Your task to perform on an android device: add a contact Image 0: 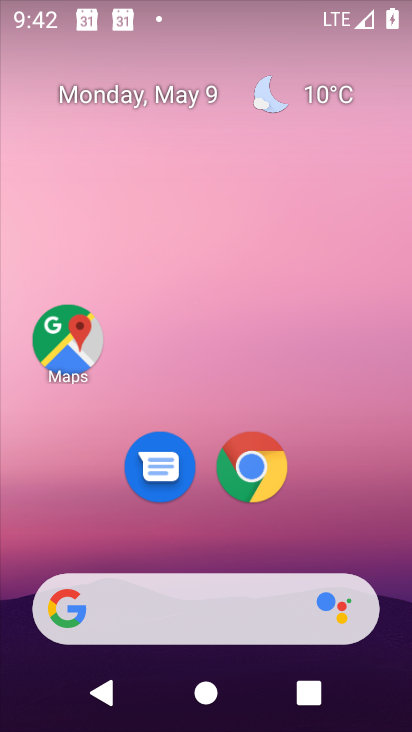
Step 0: drag from (353, 547) to (335, 11)
Your task to perform on an android device: add a contact Image 1: 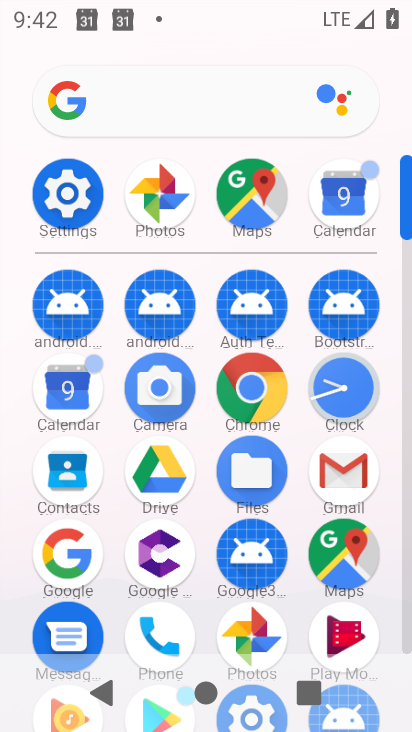
Step 1: click (68, 485)
Your task to perform on an android device: add a contact Image 2: 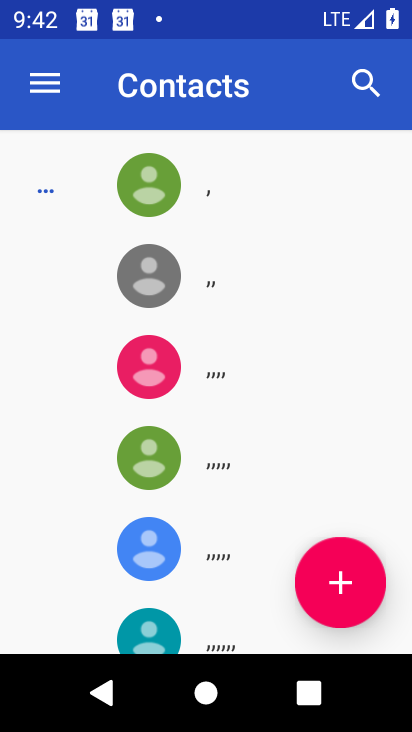
Step 2: click (334, 573)
Your task to perform on an android device: add a contact Image 3: 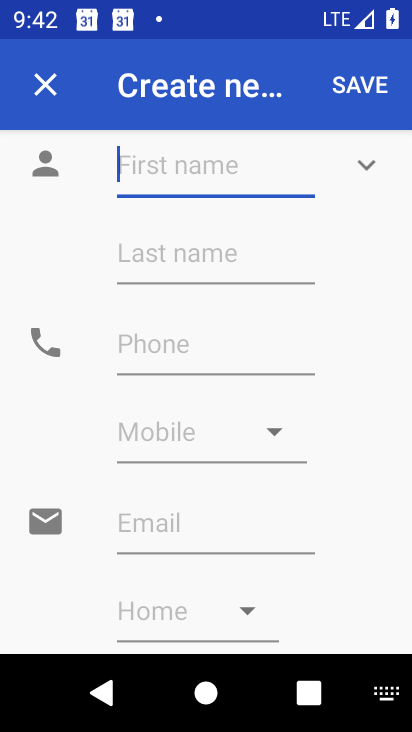
Step 3: click (143, 166)
Your task to perform on an android device: add a contact Image 4: 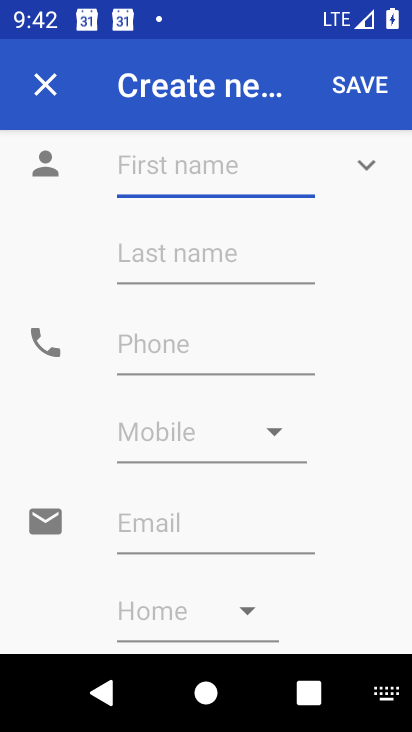
Step 4: type "tri"
Your task to perform on an android device: add a contact Image 5: 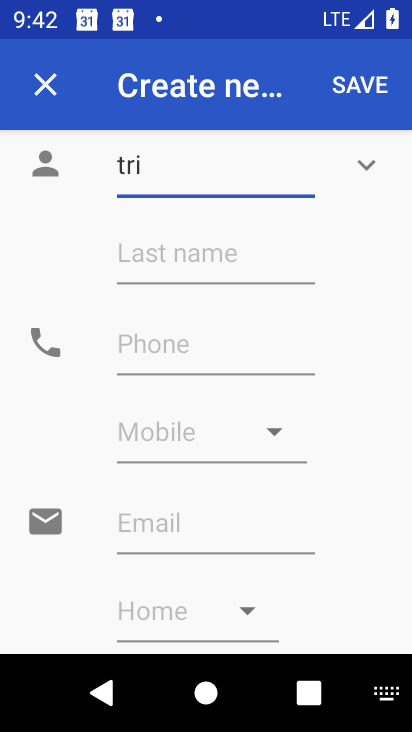
Step 5: click (188, 339)
Your task to perform on an android device: add a contact Image 6: 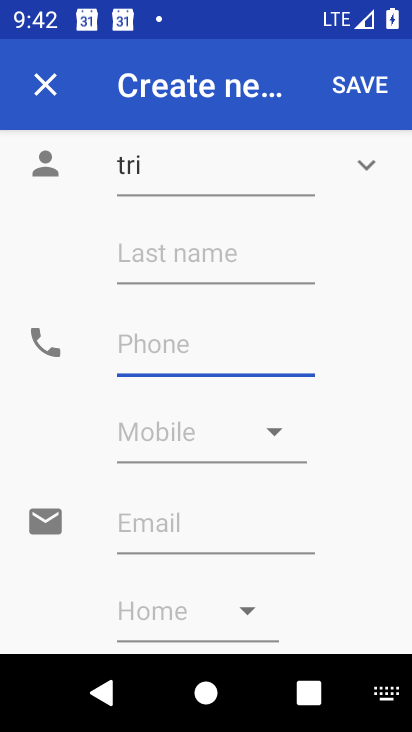
Step 6: type "876678876"
Your task to perform on an android device: add a contact Image 7: 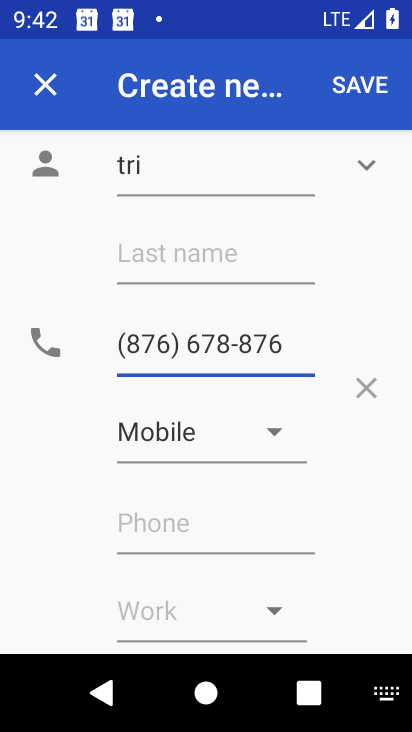
Step 7: click (372, 96)
Your task to perform on an android device: add a contact Image 8: 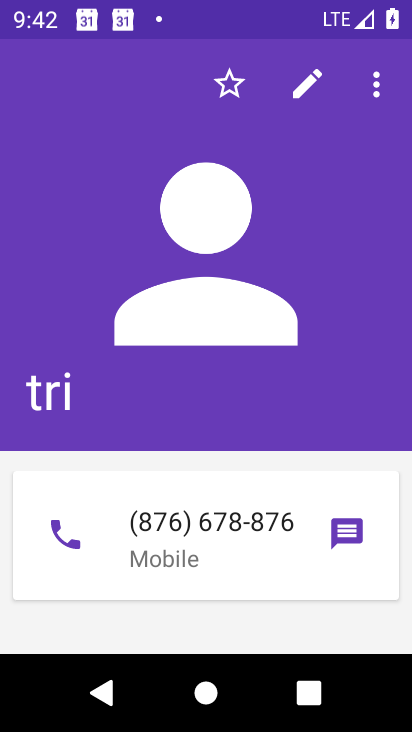
Step 8: task complete